Your task to perform on an android device: open app "LiveIn - Share Your Moment" (install if not already installed) and enter user name: "certifies@gmail.com" and password: "compartmented" Image 0: 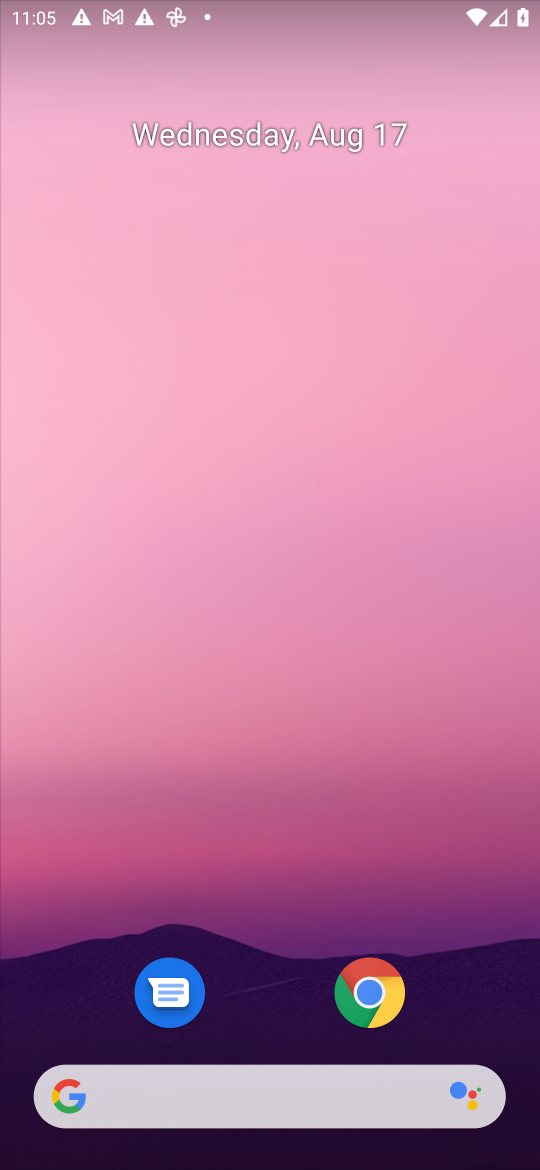
Step 0: drag from (455, 1017) to (401, 42)
Your task to perform on an android device: open app "LiveIn - Share Your Moment" (install if not already installed) and enter user name: "certifies@gmail.com" and password: "compartmented" Image 1: 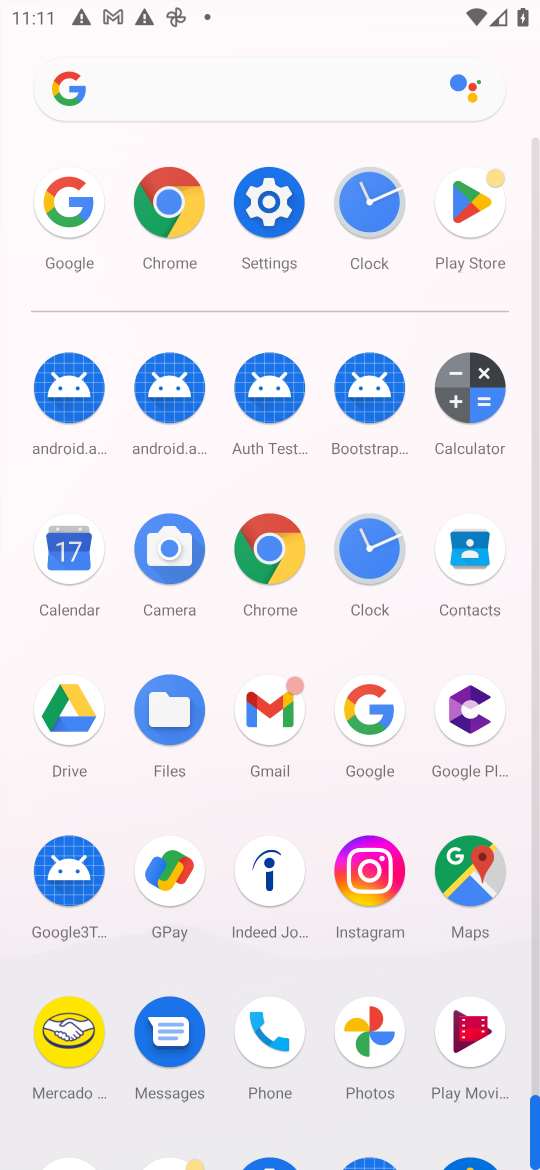
Step 1: click (455, 182)
Your task to perform on an android device: open app "LiveIn - Share Your Moment" (install if not already installed) and enter user name: "certifies@gmail.com" and password: "compartmented" Image 2: 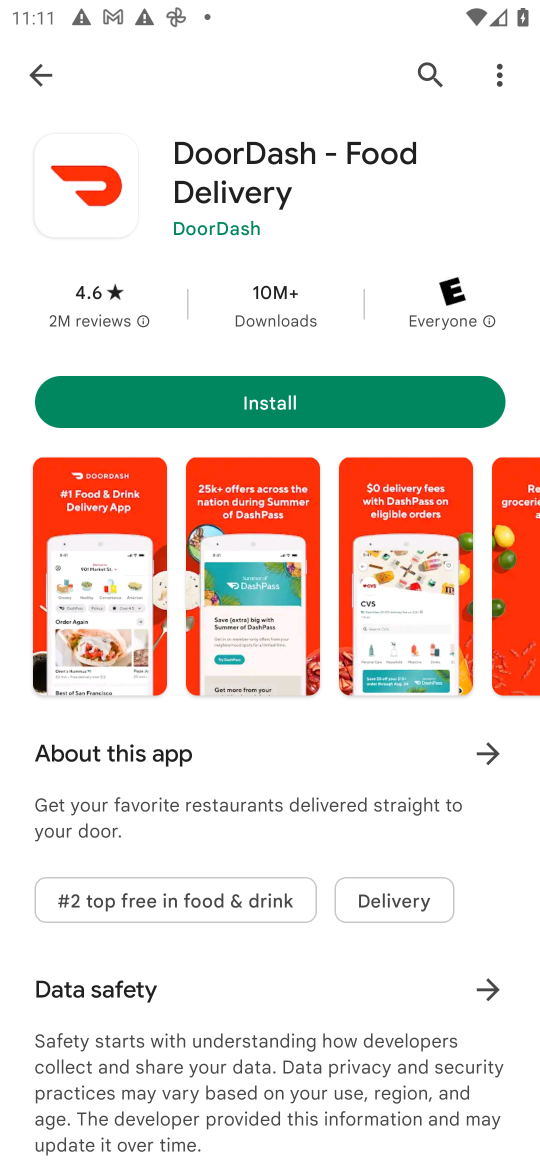
Step 2: press back button
Your task to perform on an android device: open app "LiveIn - Share Your Moment" (install if not already installed) and enter user name: "certifies@gmail.com" and password: "compartmented" Image 3: 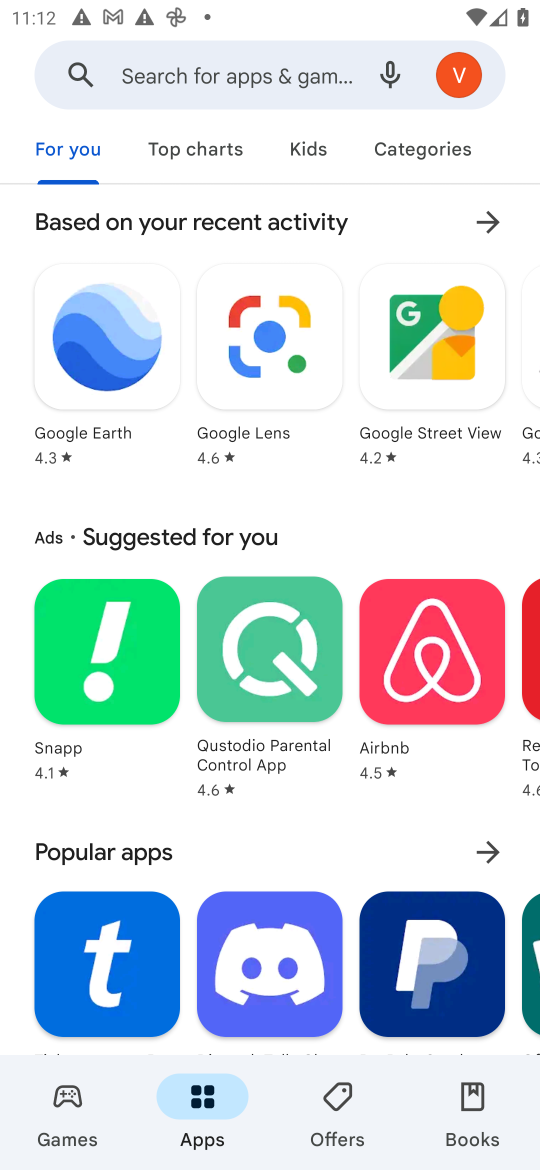
Step 3: click (192, 84)
Your task to perform on an android device: open app "LiveIn - Share Your Moment" (install if not already installed) and enter user name: "certifies@gmail.com" and password: "compartmented" Image 4: 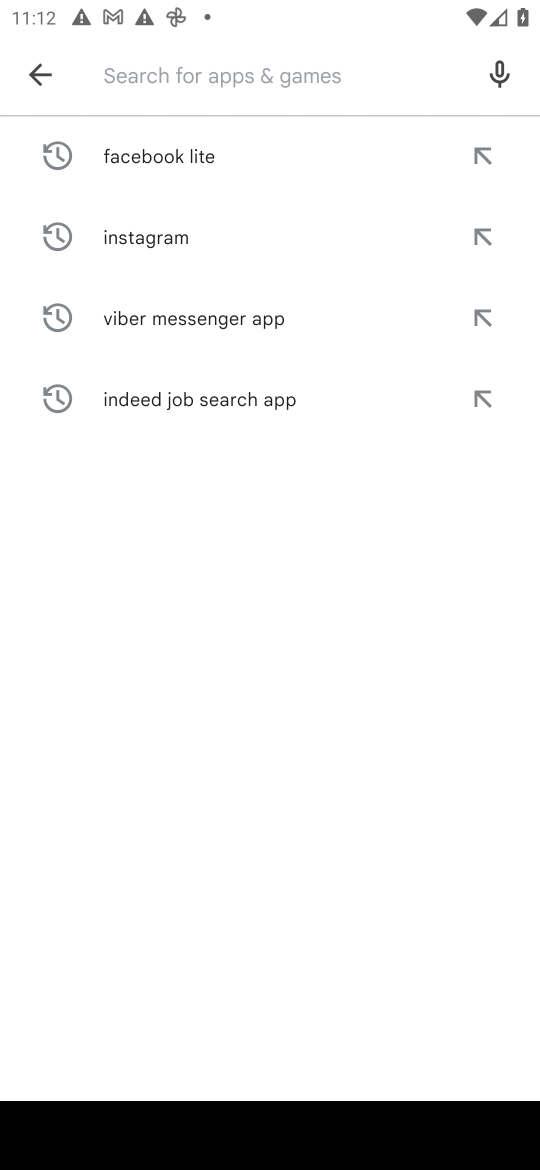
Step 4: type "LiveIn - Share Your Moment"
Your task to perform on an android device: open app "LiveIn - Share Your Moment" (install if not already installed) and enter user name: "certifies@gmail.com" and password: "compartmented" Image 5: 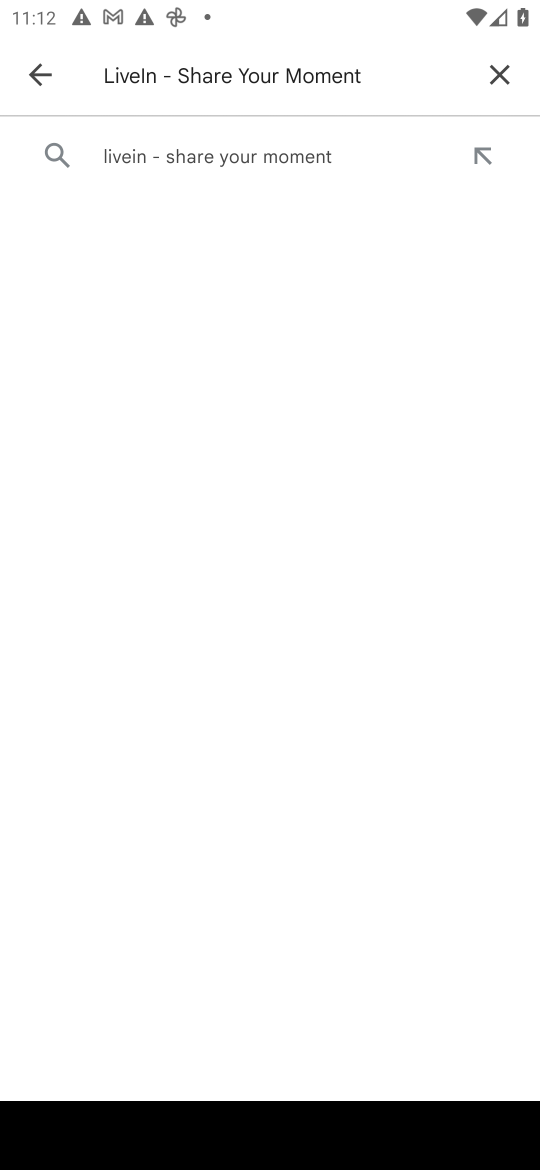
Step 5: click (218, 154)
Your task to perform on an android device: open app "LiveIn - Share Your Moment" (install if not already installed) and enter user name: "certifies@gmail.com" and password: "compartmented" Image 6: 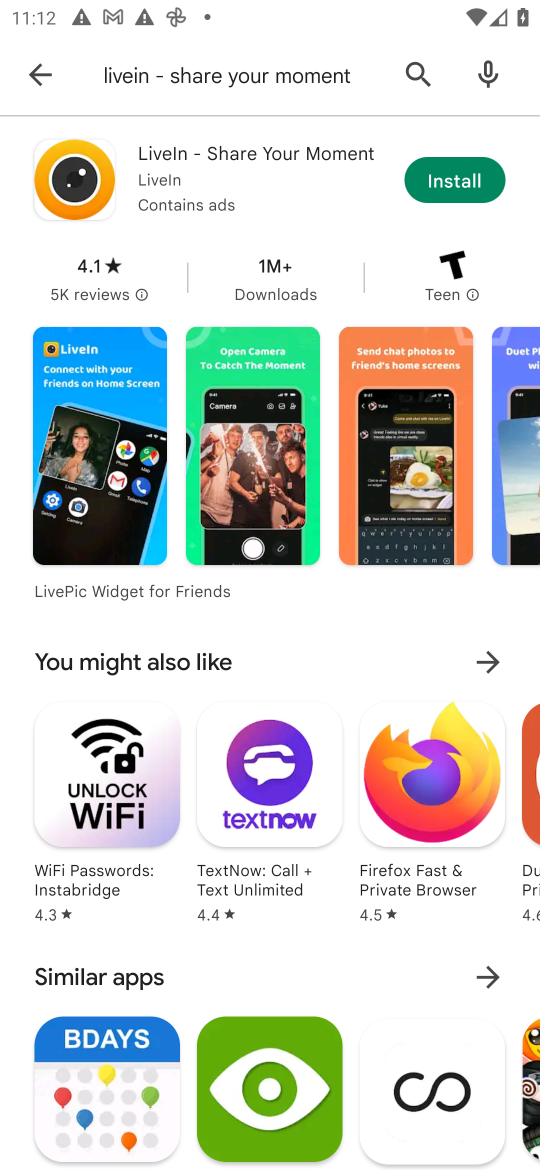
Step 6: task complete